Your task to perform on an android device: Go to Android settings Image 0: 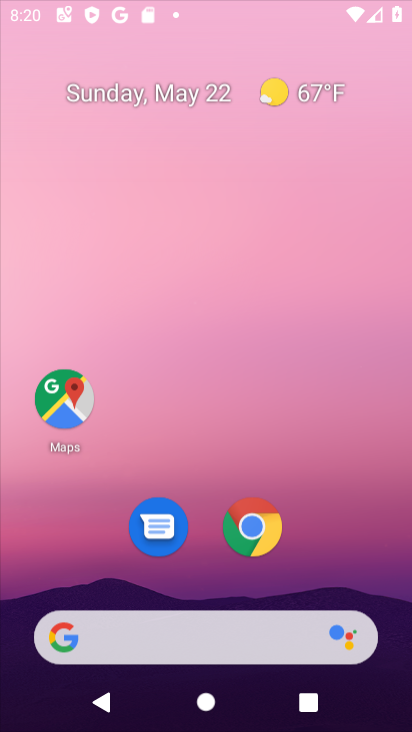
Step 0: press home button
Your task to perform on an android device: Go to Android settings Image 1: 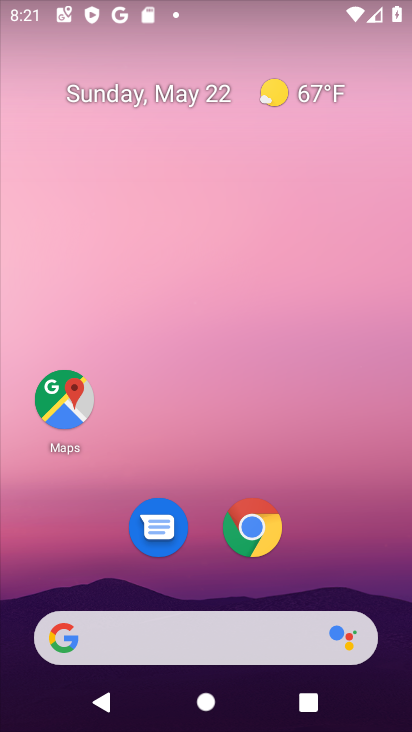
Step 1: drag from (212, 591) to (210, 30)
Your task to perform on an android device: Go to Android settings Image 2: 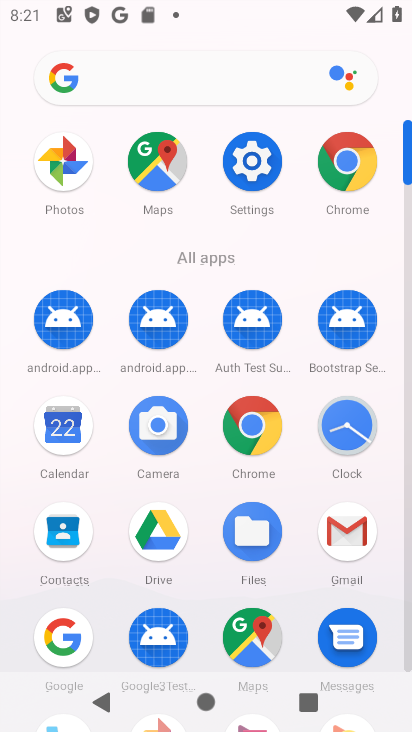
Step 2: click (251, 154)
Your task to perform on an android device: Go to Android settings Image 3: 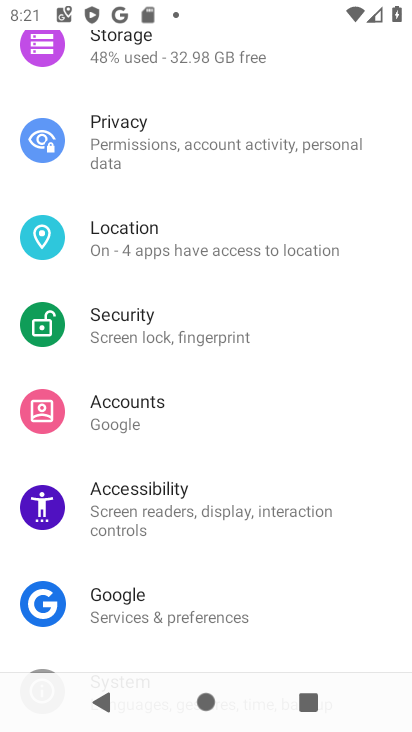
Step 3: drag from (218, 648) to (213, 95)
Your task to perform on an android device: Go to Android settings Image 4: 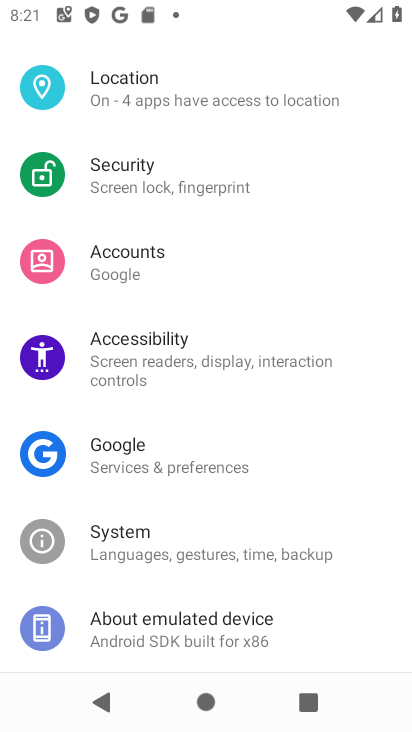
Step 4: click (286, 640)
Your task to perform on an android device: Go to Android settings Image 5: 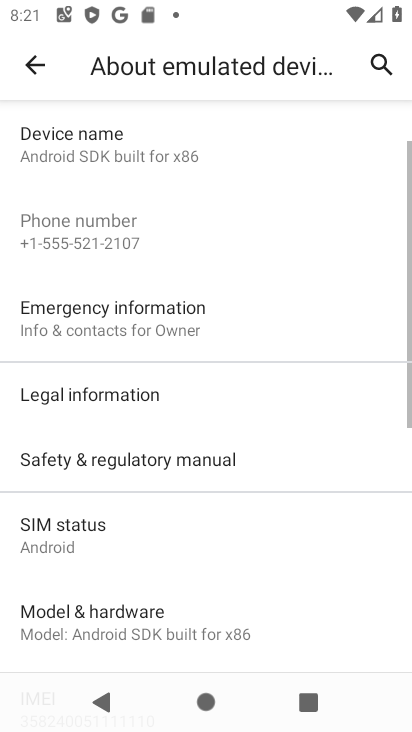
Step 5: drag from (157, 607) to (162, 71)
Your task to perform on an android device: Go to Android settings Image 6: 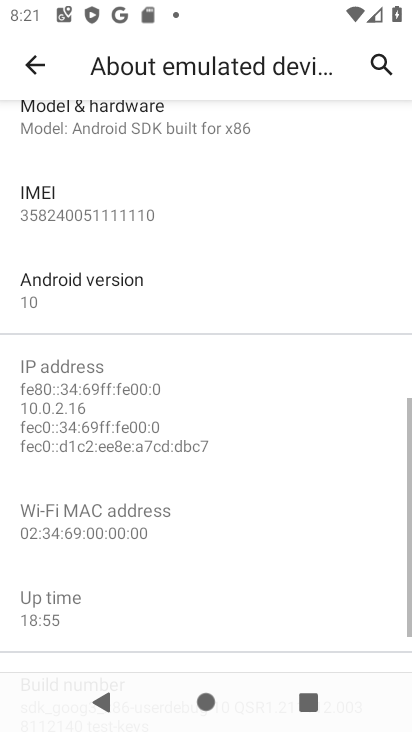
Step 6: click (58, 297)
Your task to perform on an android device: Go to Android settings Image 7: 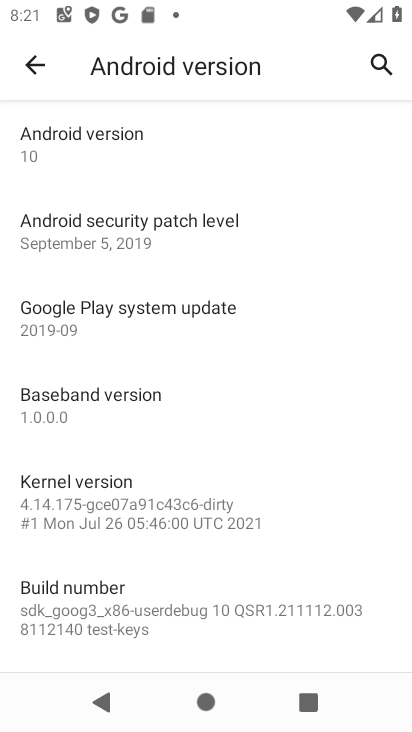
Step 7: task complete